Your task to perform on an android device: Go to internet settings Image 0: 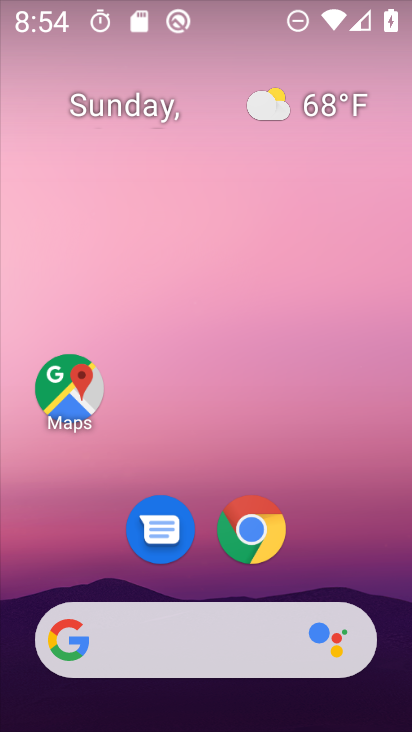
Step 0: press home button
Your task to perform on an android device: Go to internet settings Image 1: 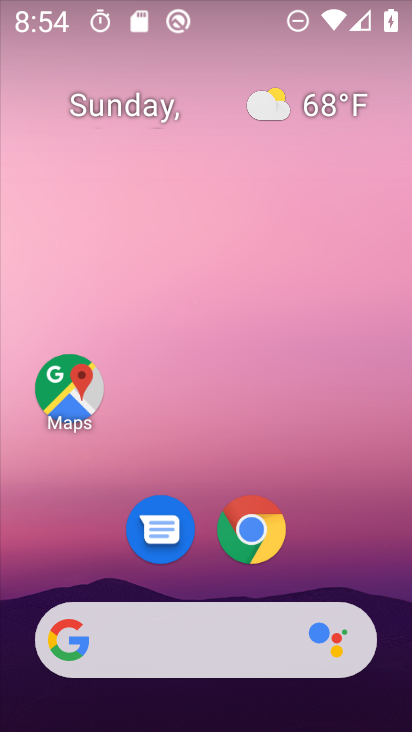
Step 1: drag from (205, 569) to (240, 66)
Your task to perform on an android device: Go to internet settings Image 2: 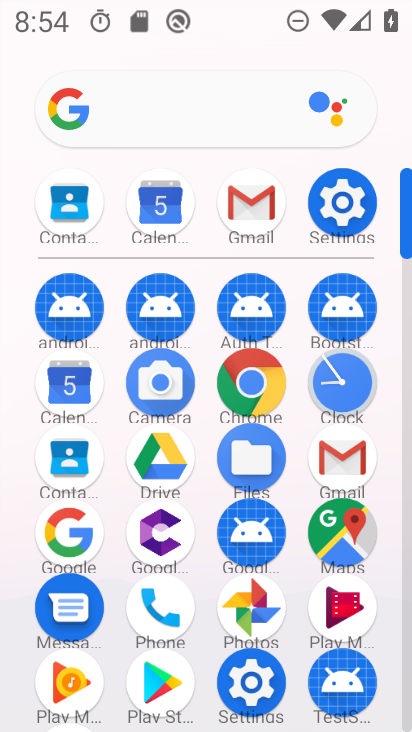
Step 2: click (343, 196)
Your task to perform on an android device: Go to internet settings Image 3: 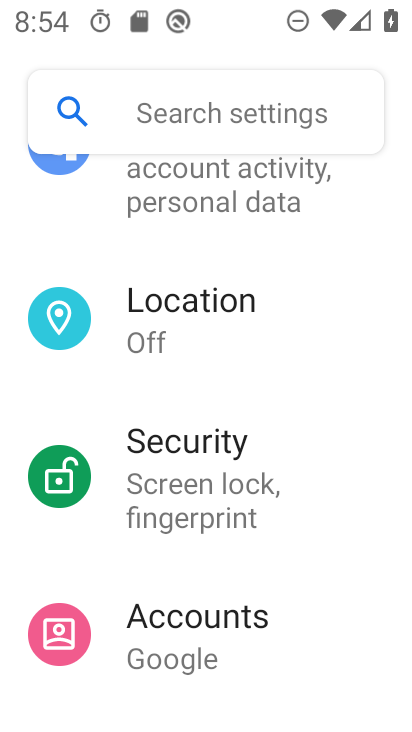
Step 3: drag from (174, 195) to (228, 729)
Your task to perform on an android device: Go to internet settings Image 4: 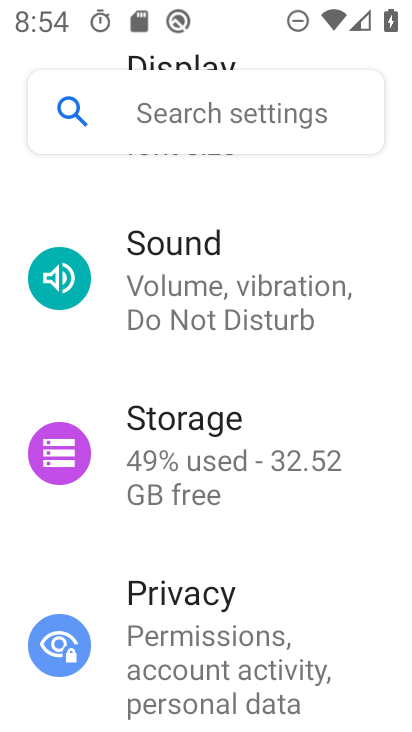
Step 4: drag from (201, 184) to (208, 726)
Your task to perform on an android device: Go to internet settings Image 5: 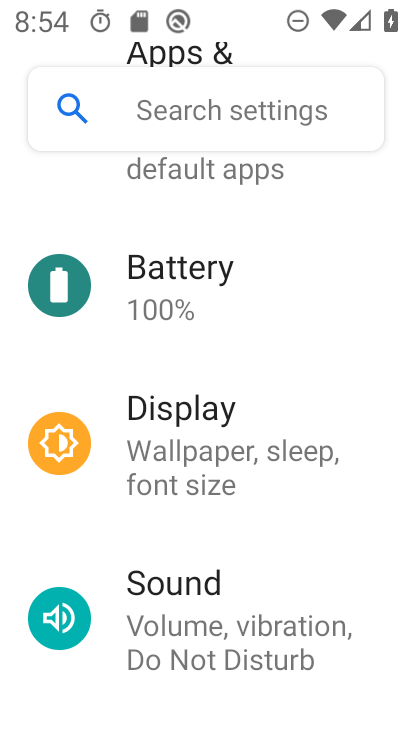
Step 5: drag from (193, 186) to (189, 731)
Your task to perform on an android device: Go to internet settings Image 6: 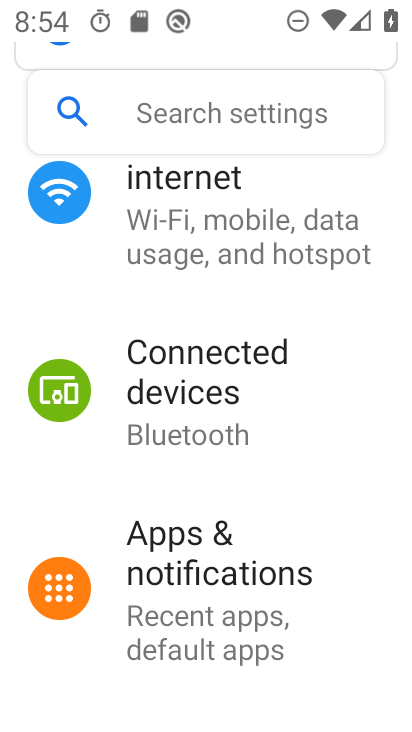
Step 6: click (165, 243)
Your task to perform on an android device: Go to internet settings Image 7: 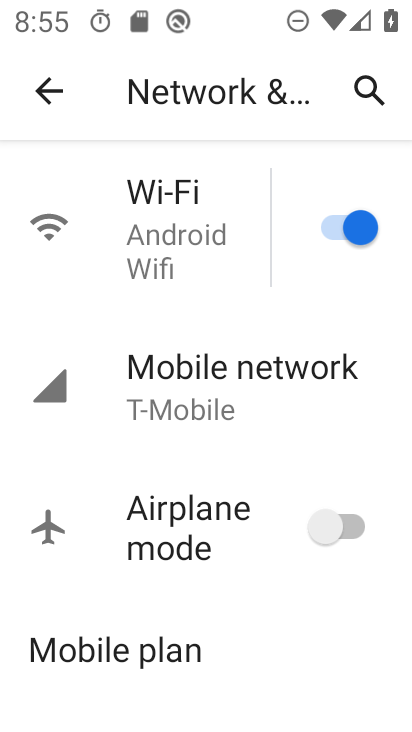
Step 7: drag from (211, 651) to (237, 205)
Your task to perform on an android device: Go to internet settings Image 8: 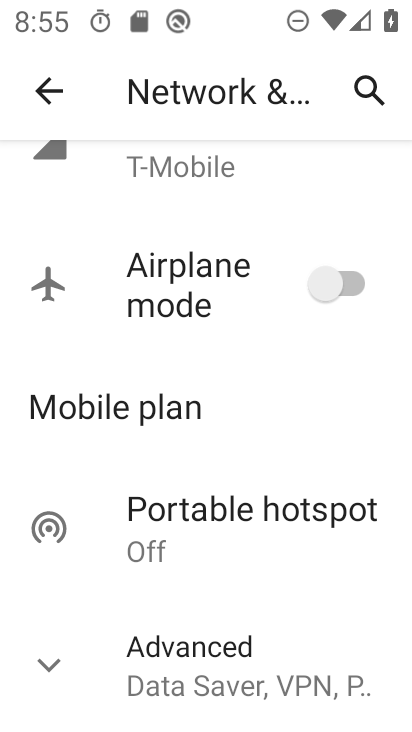
Step 8: click (44, 653)
Your task to perform on an android device: Go to internet settings Image 9: 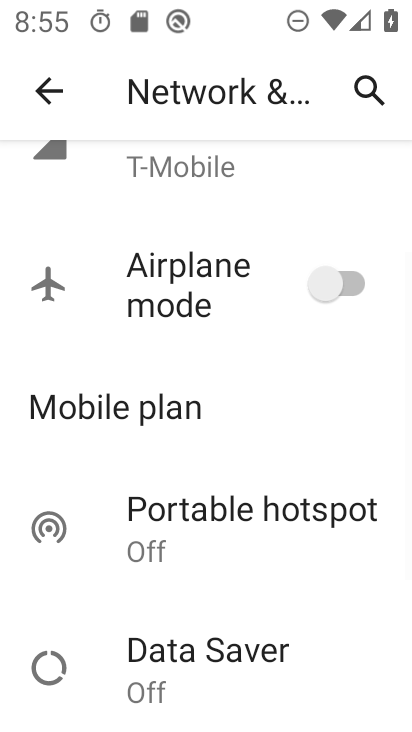
Step 9: task complete